Your task to perform on an android device: Open the map Image 0: 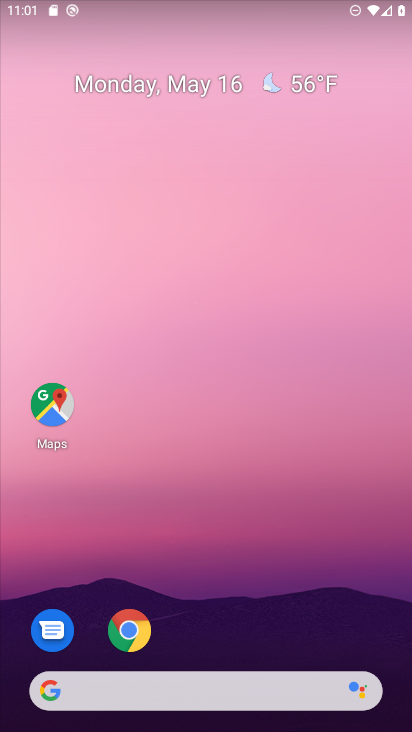
Step 0: click (43, 402)
Your task to perform on an android device: Open the map Image 1: 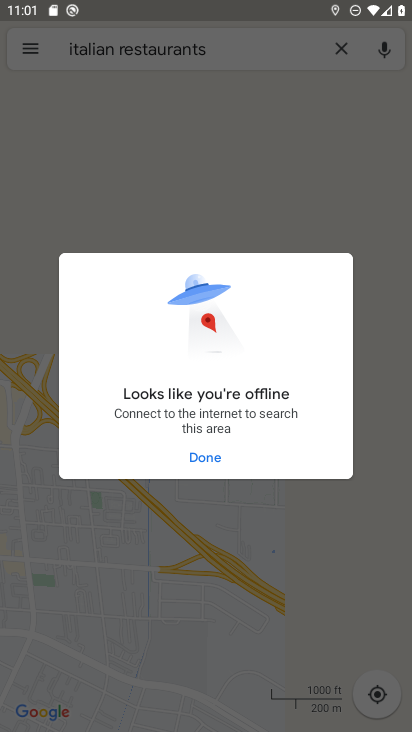
Step 1: click (204, 458)
Your task to perform on an android device: Open the map Image 2: 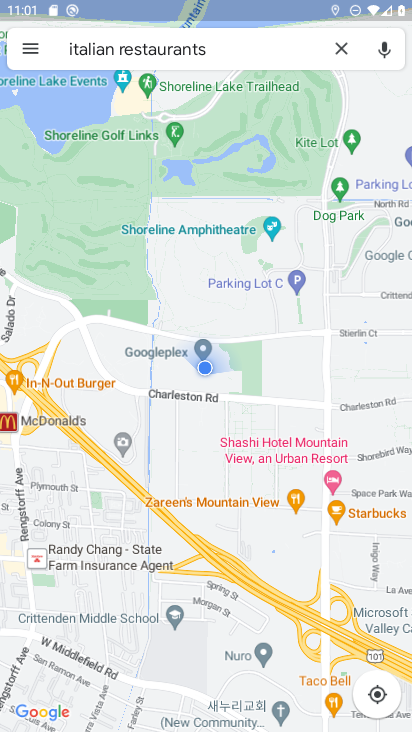
Step 2: click (341, 43)
Your task to perform on an android device: Open the map Image 3: 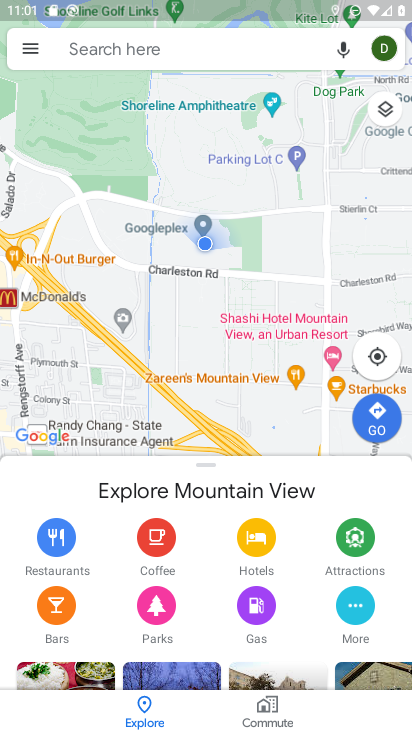
Step 3: task complete